Your task to perform on an android device: toggle javascript in the chrome app Image 0: 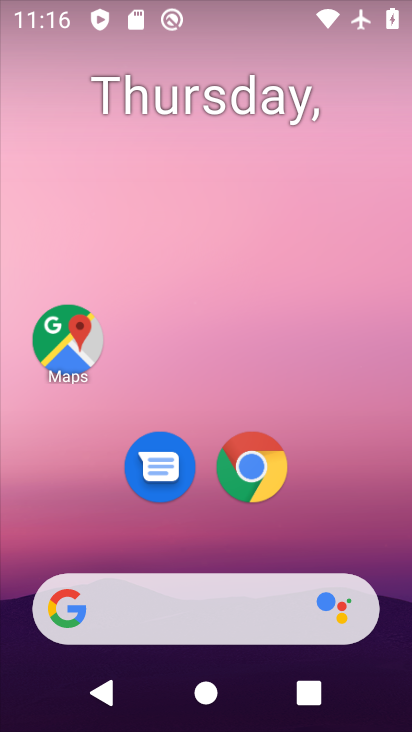
Step 0: click (270, 477)
Your task to perform on an android device: toggle javascript in the chrome app Image 1: 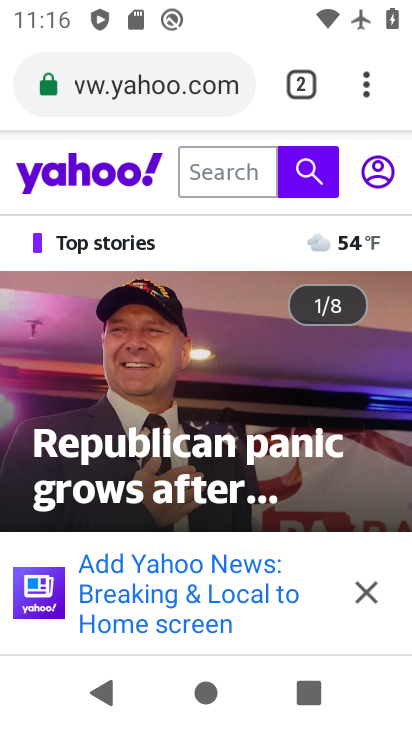
Step 1: click (363, 89)
Your task to perform on an android device: toggle javascript in the chrome app Image 2: 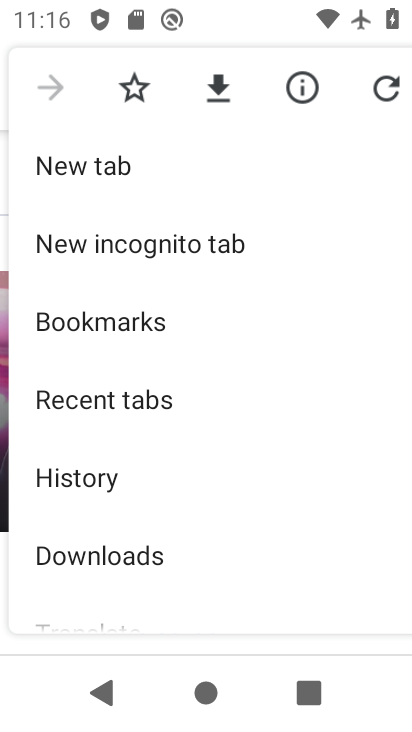
Step 2: drag from (153, 536) to (154, 150)
Your task to perform on an android device: toggle javascript in the chrome app Image 3: 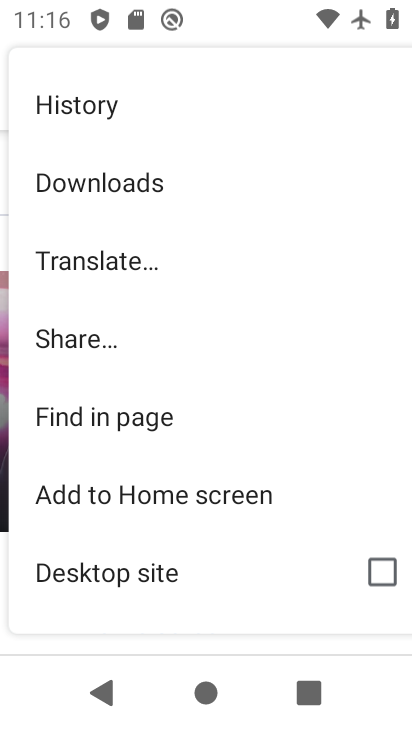
Step 3: drag from (151, 535) to (130, 144)
Your task to perform on an android device: toggle javascript in the chrome app Image 4: 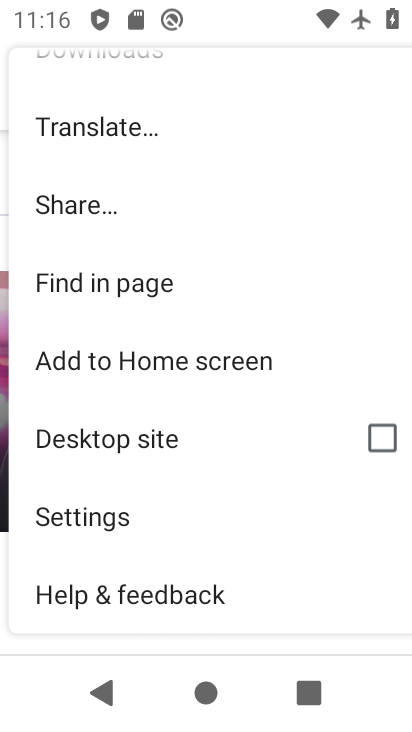
Step 4: click (68, 507)
Your task to perform on an android device: toggle javascript in the chrome app Image 5: 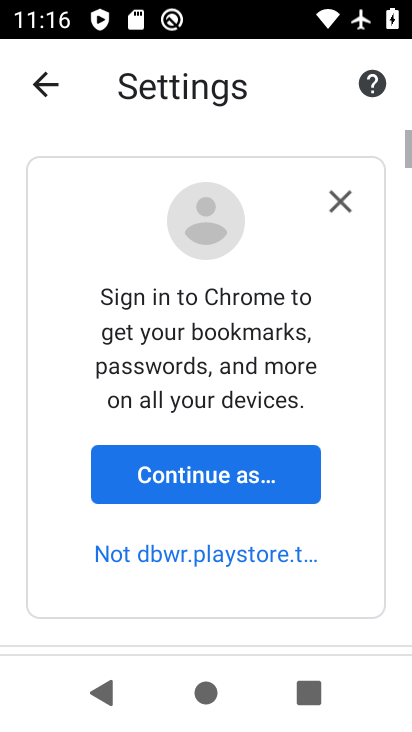
Step 5: drag from (212, 589) to (202, 147)
Your task to perform on an android device: toggle javascript in the chrome app Image 6: 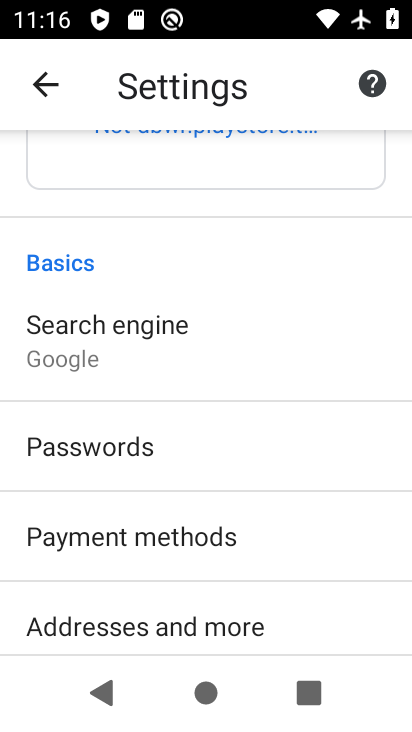
Step 6: drag from (200, 539) to (154, 98)
Your task to perform on an android device: toggle javascript in the chrome app Image 7: 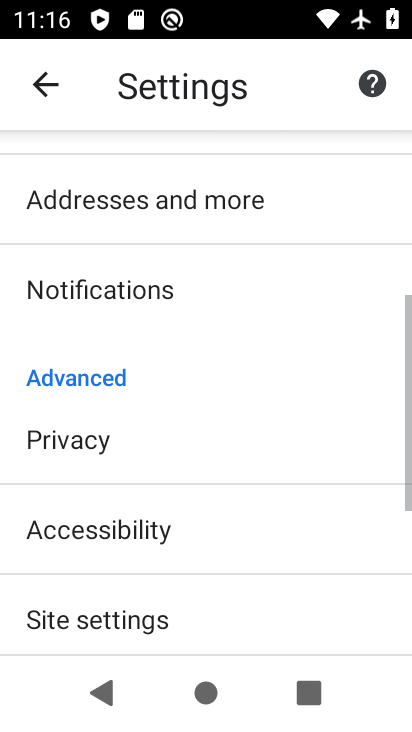
Step 7: drag from (165, 477) to (154, 182)
Your task to perform on an android device: toggle javascript in the chrome app Image 8: 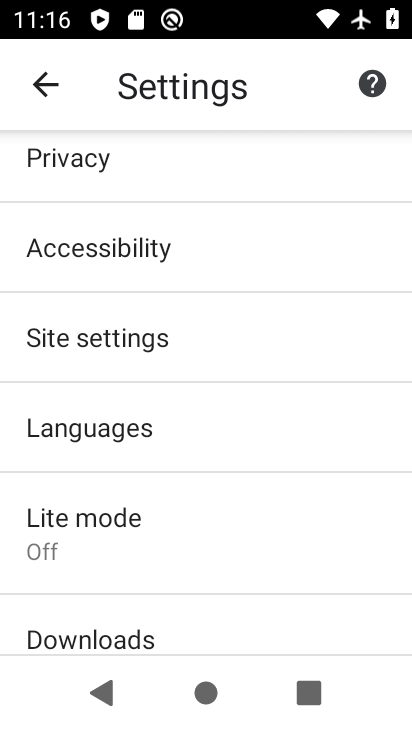
Step 8: click (116, 342)
Your task to perform on an android device: toggle javascript in the chrome app Image 9: 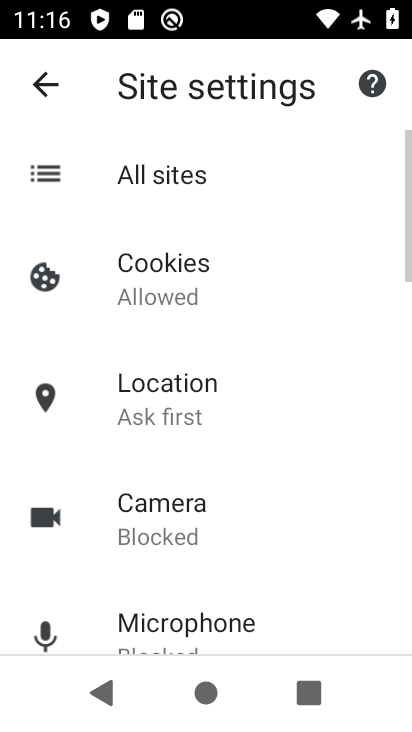
Step 9: drag from (228, 585) to (212, 112)
Your task to perform on an android device: toggle javascript in the chrome app Image 10: 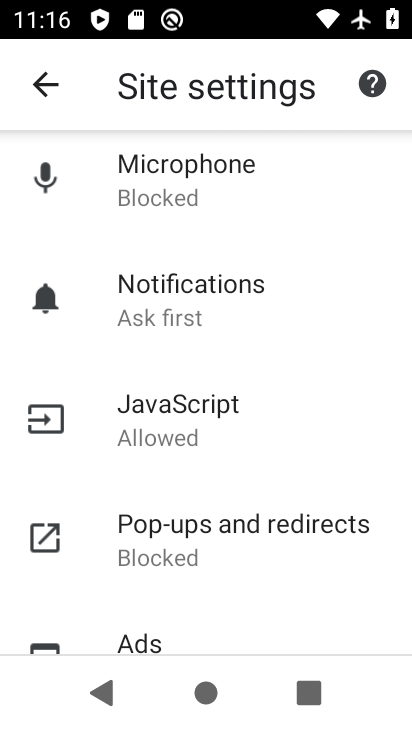
Step 10: click (172, 425)
Your task to perform on an android device: toggle javascript in the chrome app Image 11: 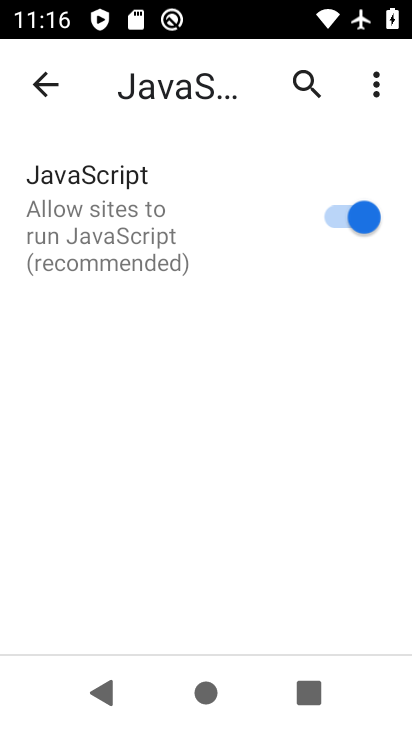
Step 11: click (354, 215)
Your task to perform on an android device: toggle javascript in the chrome app Image 12: 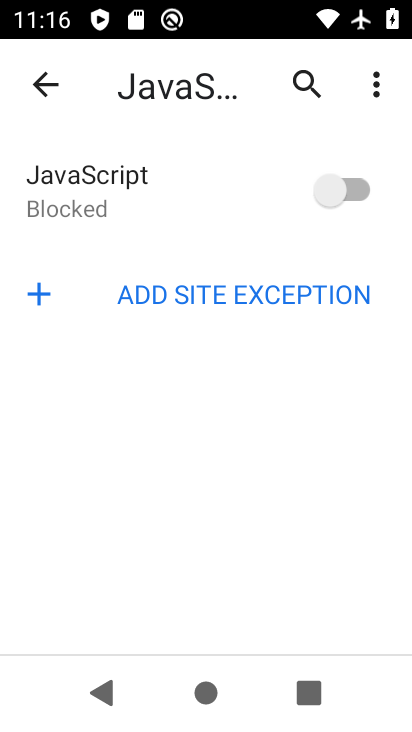
Step 12: task complete